Your task to perform on an android device: What's the weather? Image 0: 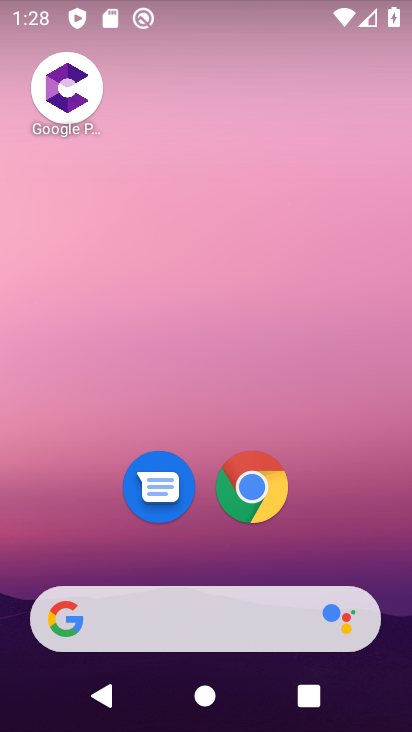
Step 0: drag from (6, 358) to (407, 273)
Your task to perform on an android device: What's the weather? Image 1: 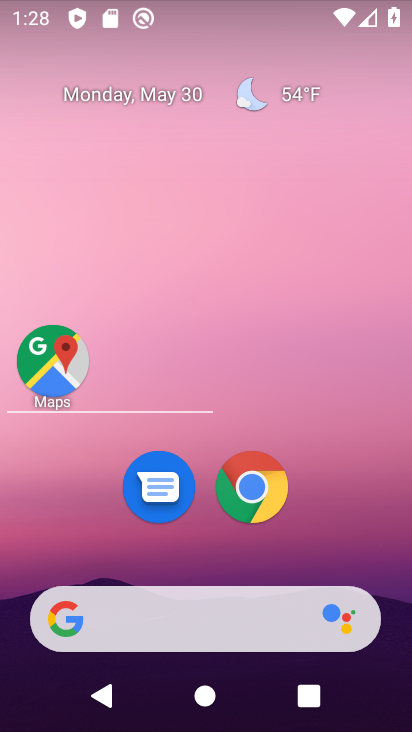
Step 1: click (257, 87)
Your task to perform on an android device: What's the weather? Image 2: 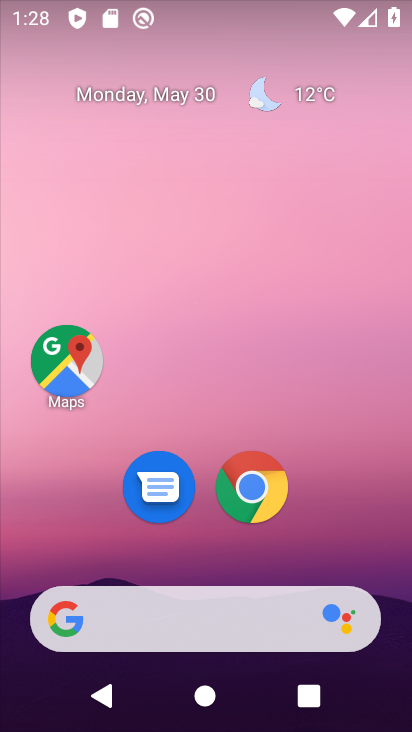
Step 2: click (297, 106)
Your task to perform on an android device: What's the weather? Image 3: 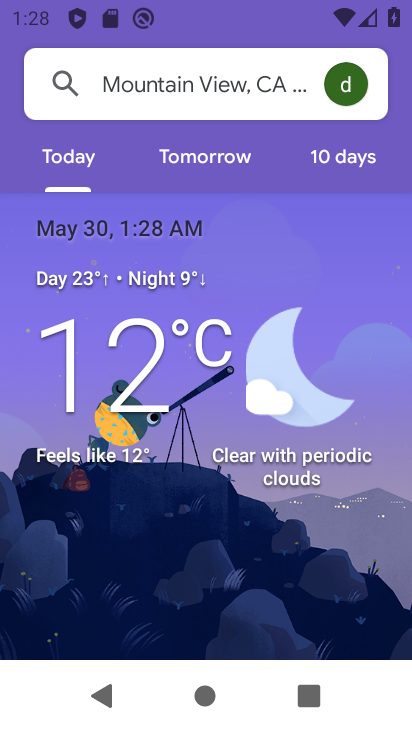
Step 3: task complete